Your task to perform on an android device: turn off notifications settings in the gmail app Image 0: 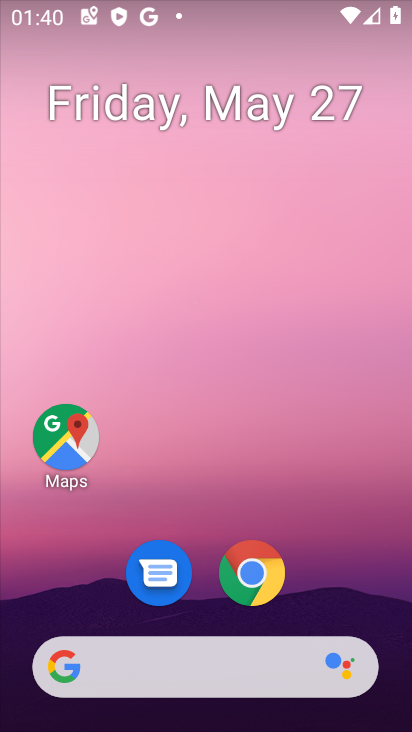
Step 0: drag from (195, 557) to (187, 130)
Your task to perform on an android device: turn off notifications settings in the gmail app Image 1: 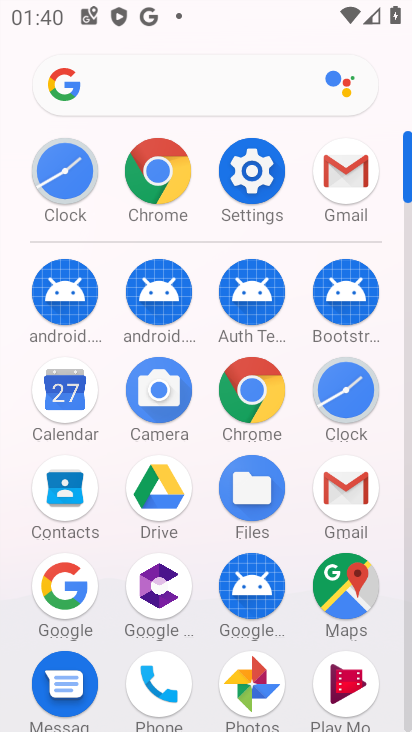
Step 1: click (233, 155)
Your task to perform on an android device: turn off notifications settings in the gmail app Image 2: 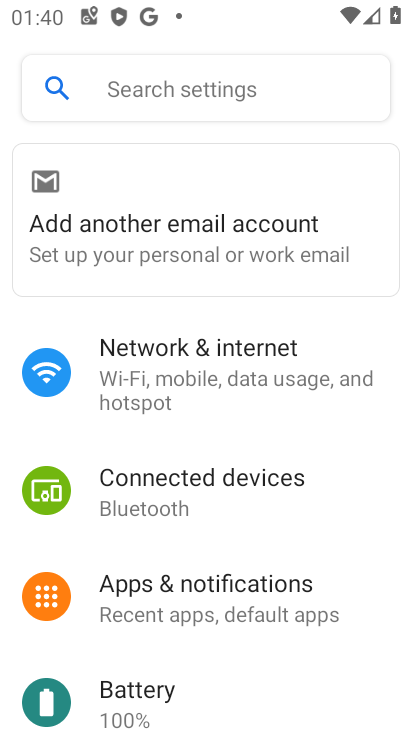
Step 2: press home button
Your task to perform on an android device: turn off notifications settings in the gmail app Image 3: 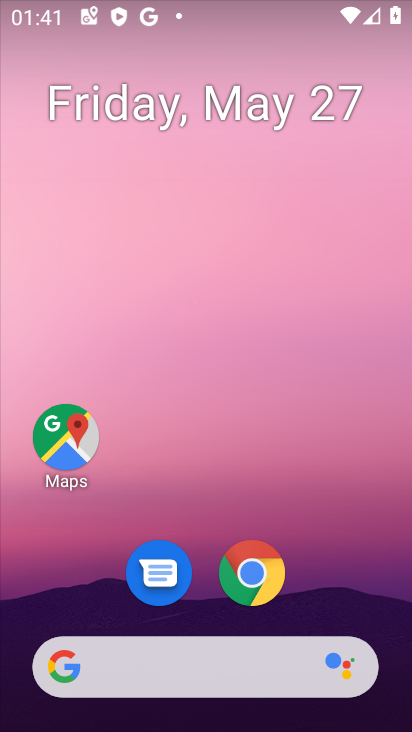
Step 3: drag from (237, 639) to (179, 105)
Your task to perform on an android device: turn off notifications settings in the gmail app Image 4: 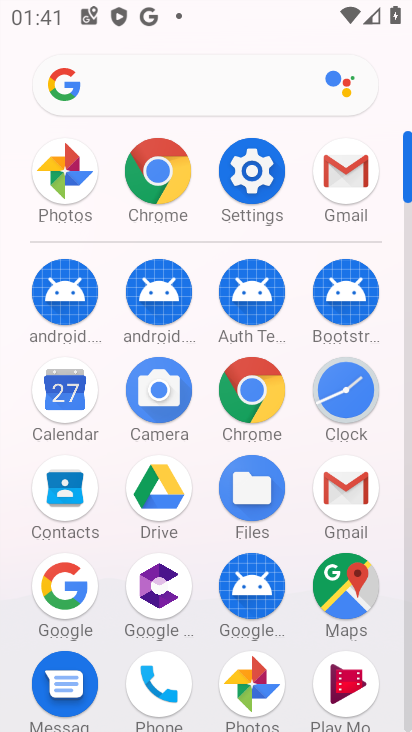
Step 4: click (349, 488)
Your task to perform on an android device: turn off notifications settings in the gmail app Image 5: 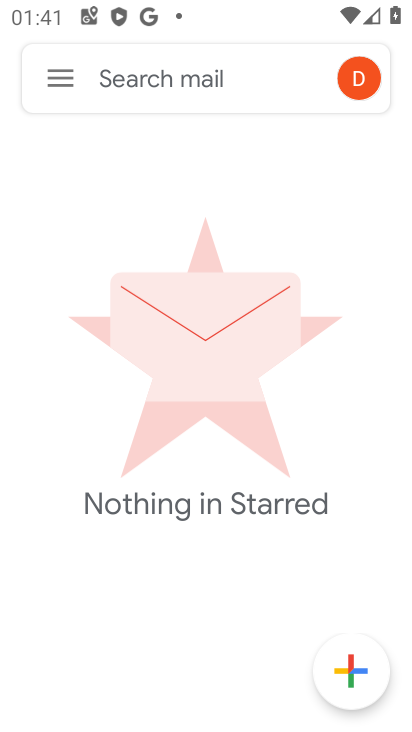
Step 5: click (42, 77)
Your task to perform on an android device: turn off notifications settings in the gmail app Image 6: 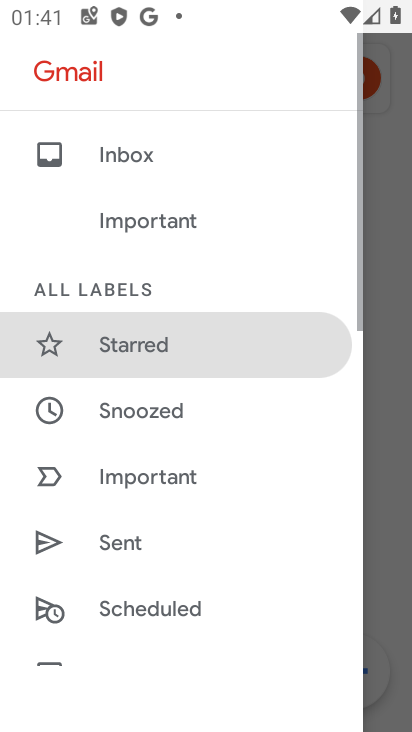
Step 6: drag from (154, 579) to (152, 248)
Your task to perform on an android device: turn off notifications settings in the gmail app Image 7: 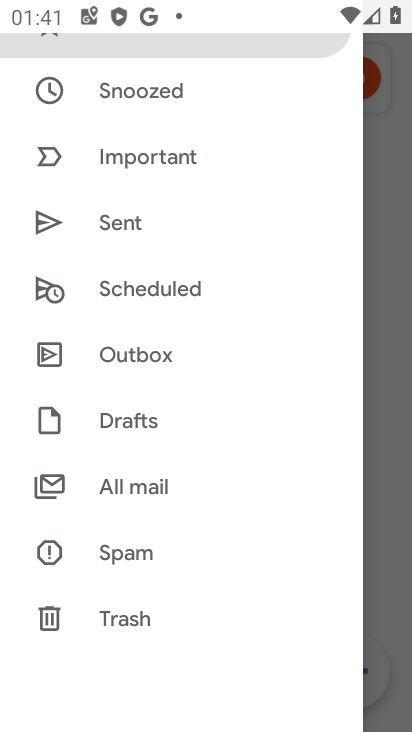
Step 7: drag from (107, 622) to (128, 124)
Your task to perform on an android device: turn off notifications settings in the gmail app Image 8: 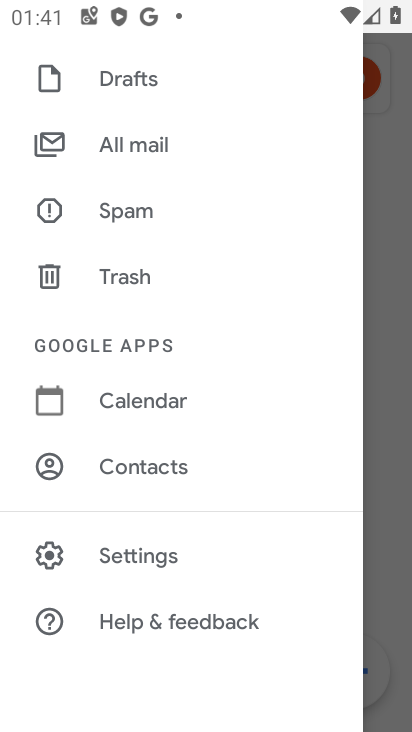
Step 8: click (120, 542)
Your task to perform on an android device: turn off notifications settings in the gmail app Image 9: 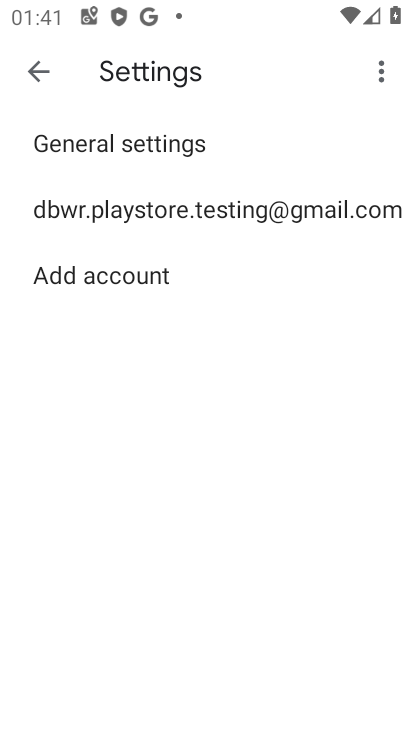
Step 9: click (97, 154)
Your task to perform on an android device: turn off notifications settings in the gmail app Image 10: 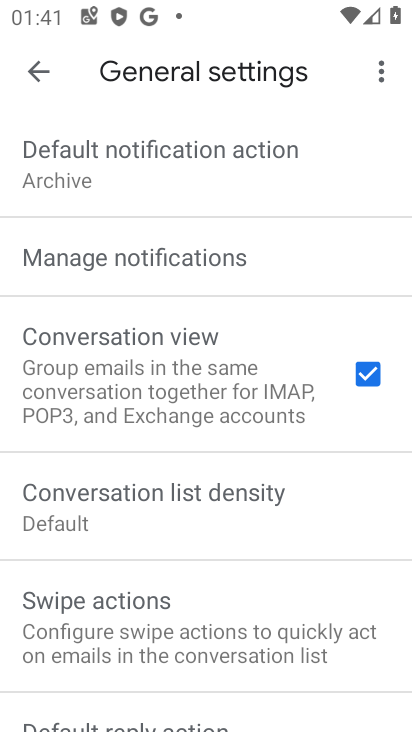
Step 10: click (167, 258)
Your task to perform on an android device: turn off notifications settings in the gmail app Image 11: 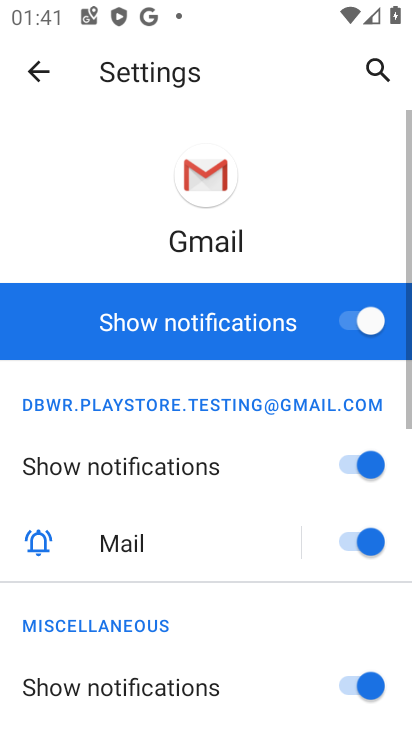
Step 11: click (355, 321)
Your task to perform on an android device: turn off notifications settings in the gmail app Image 12: 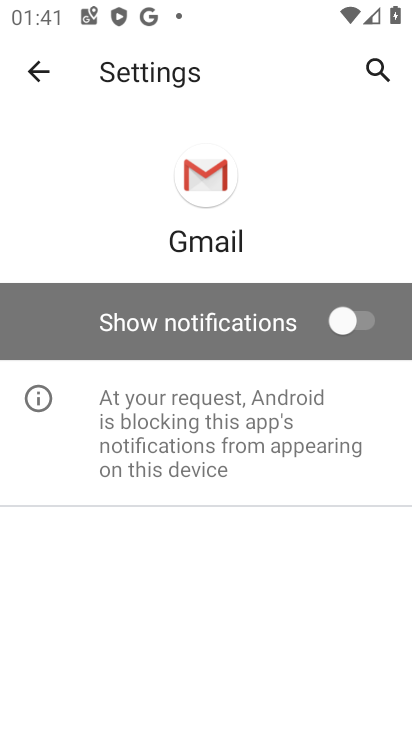
Step 12: task complete